Your task to perform on an android device: Search for pizza restaurants on Maps Image 0: 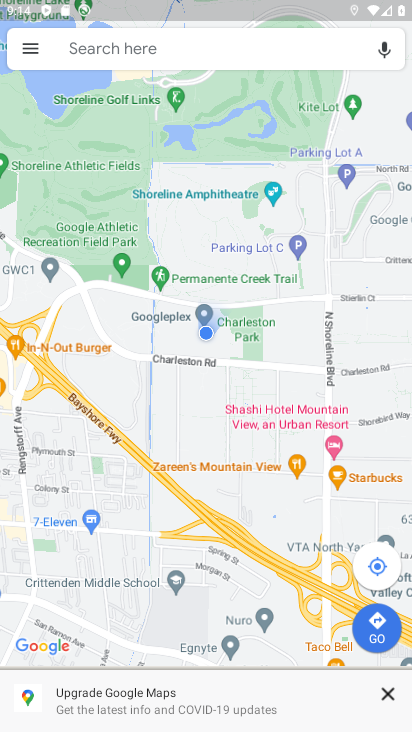
Step 0: press home button
Your task to perform on an android device: Search for pizza restaurants on Maps Image 1: 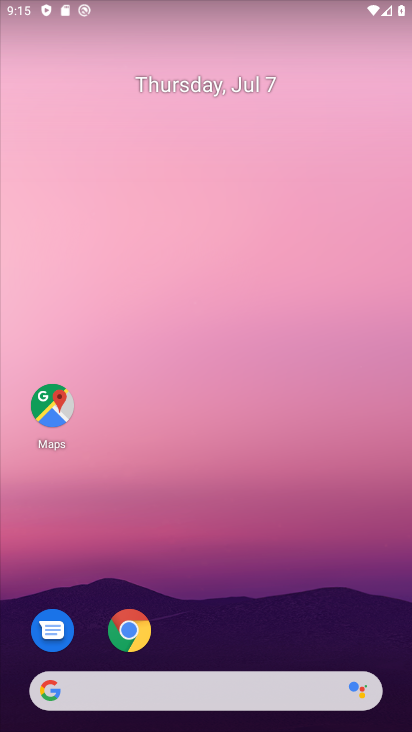
Step 1: drag from (181, 378) to (181, 317)
Your task to perform on an android device: Search for pizza restaurants on Maps Image 2: 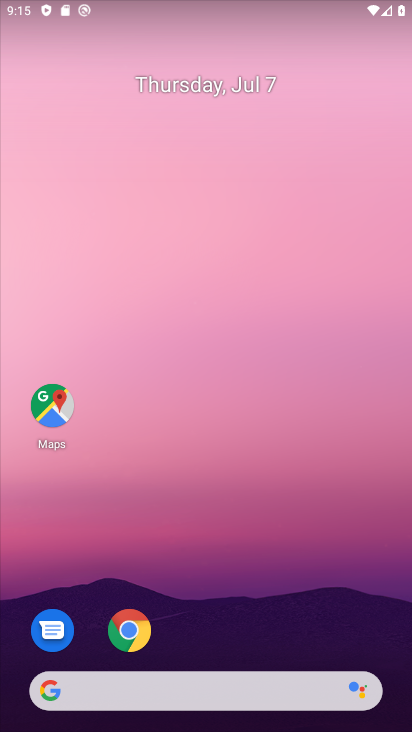
Step 2: drag from (200, 683) to (223, 380)
Your task to perform on an android device: Search for pizza restaurants on Maps Image 3: 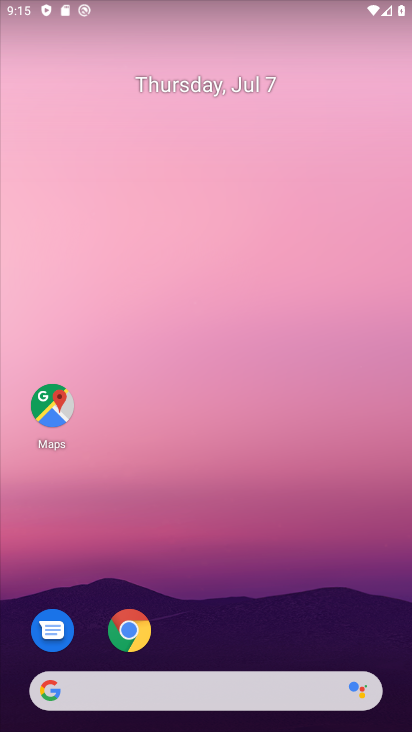
Step 3: drag from (212, 668) to (241, 222)
Your task to perform on an android device: Search for pizza restaurants on Maps Image 4: 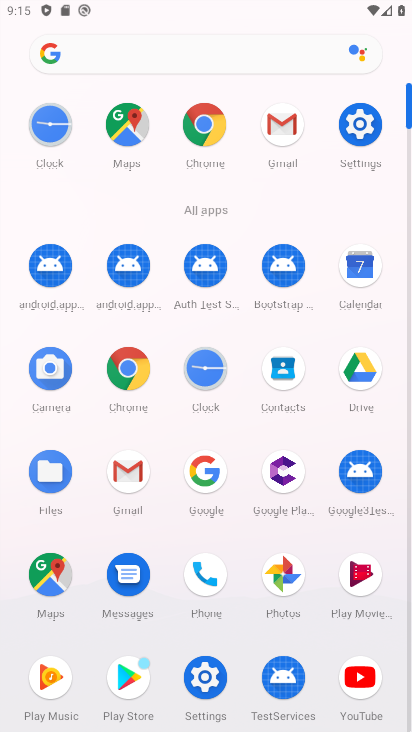
Step 4: click (50, 575)
Your task to perform on an android device: Search for pizza restaurants on Maps Image 5: 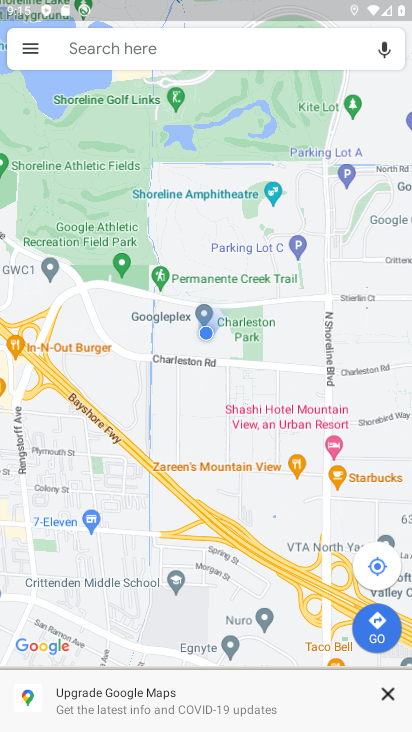
Step 5: click (176, 48)
Your task to perform on an android device: Search for pizza restaurants on Maps Image 6: 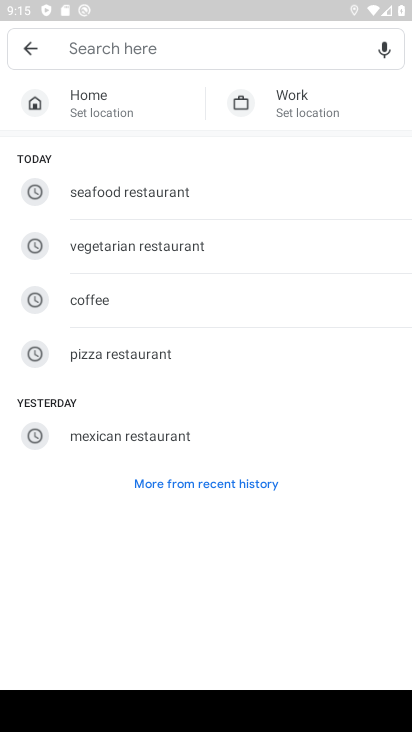
Step 6: click (116, 365)
Your task to perform on an android device: Search for pizza restaurants on Maps Image 7: 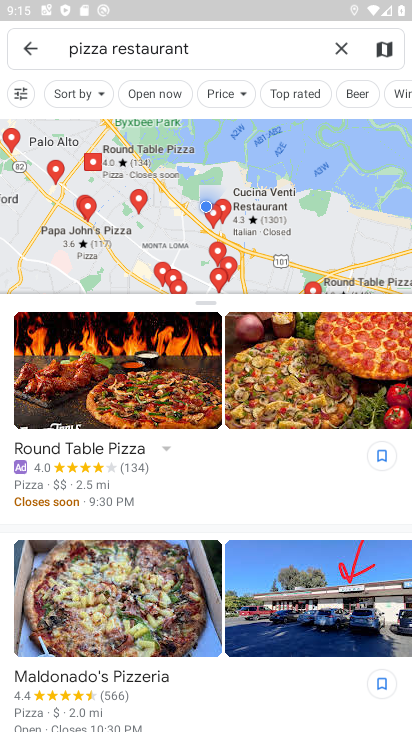
Step 7: task complete